Your task to perform on an android device: turn vacation reply on in the gmail app Image 0: 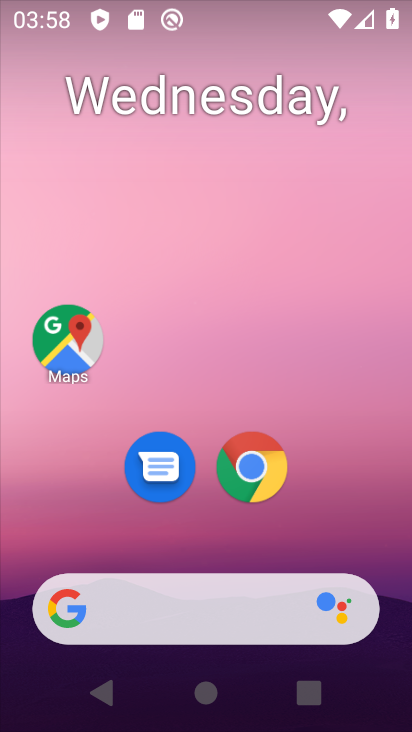
Step 0: drag from (382, 557) to (311, 173)
Your task to perform on an android device: turn vacation reply on in the gmail app Image 1: 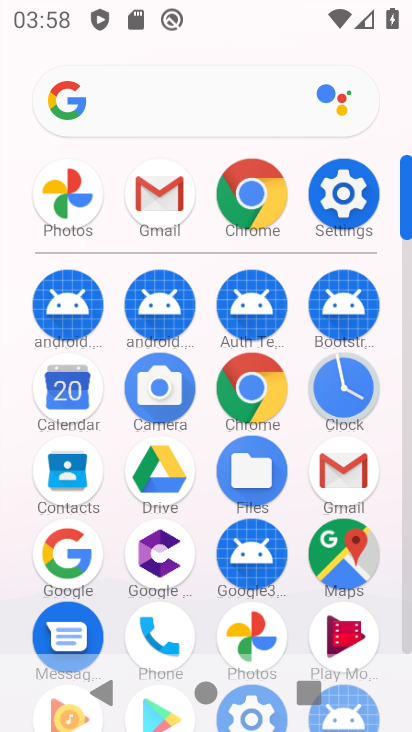
Step 1: click (406, 632)
Your task to perform on an android device: turn vacation reply on in the gmail app Image 2: 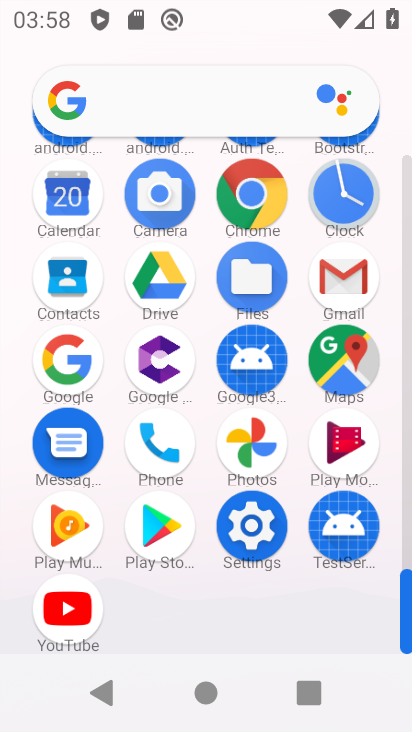
Step 2: click (343, 274)
Your task to perform on an android device: turn vacation reply on in the gmail app Image 3: 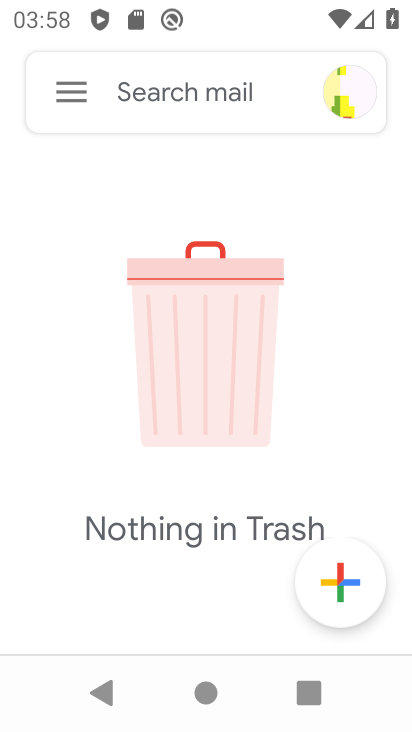
Step 3: click (71, 91)
Your task to perform on an android device: turn vacation reply on in the gmail app Image 4: 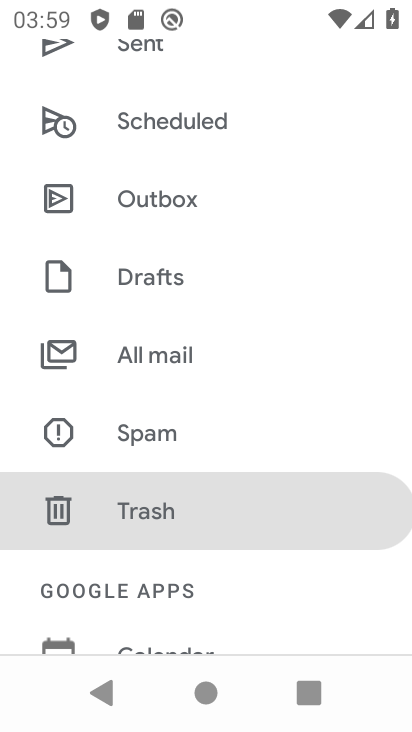
Step 4: drag from (277, 519) to (254, 230)
Your task to perform on an android device: turn vacation reply on in the gmail app Image 5: 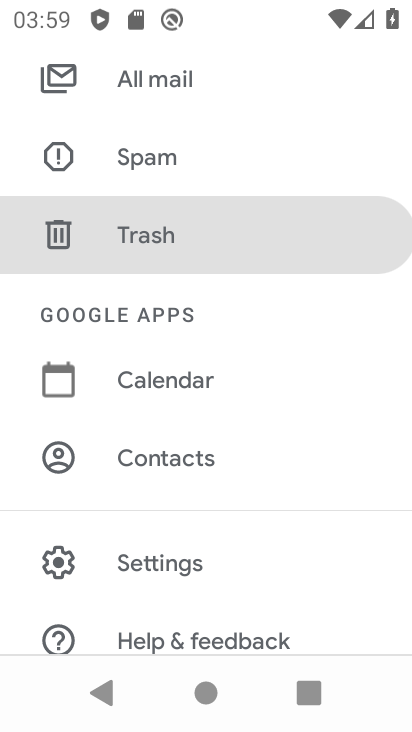
Step 5: click (162, 572)
Your task to perform on an android device: turn vacation reply on in the gmail app Image 6: 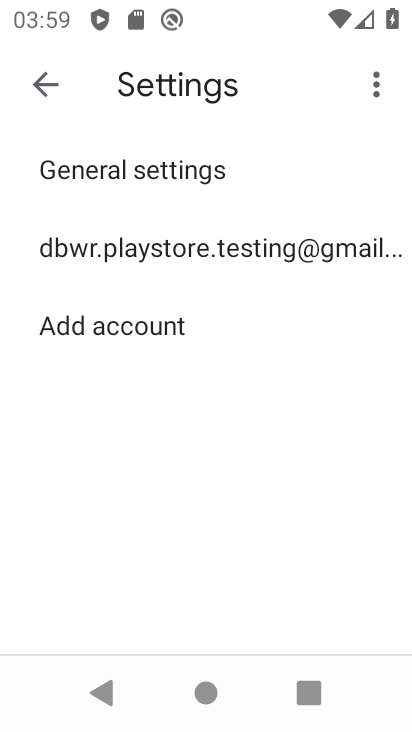
Step 6: click (159, 238)
Your task to perform on an android device: turn vacation reply on in the gmail app Image 7: 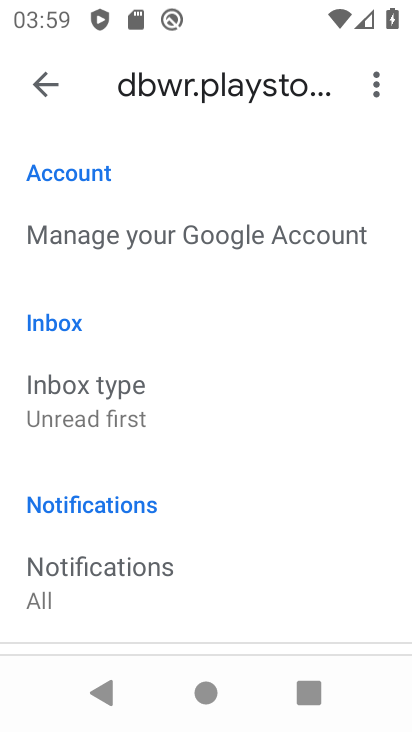
Step 7: drag from (289, 602) to (269, 300)
Your task to perform on an android device: turn vacation reply on in the gmail app Image 8: 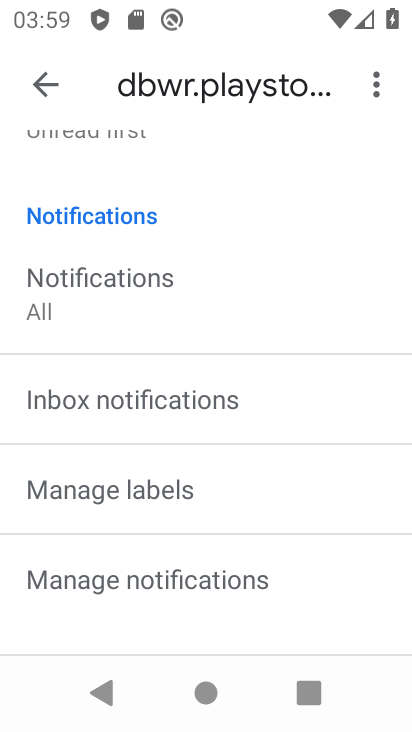
Step 8: drag from (266, 574) to (254, 261)
Your task to perform on an android device: turn vacation reply on in the gmail app Image 9: 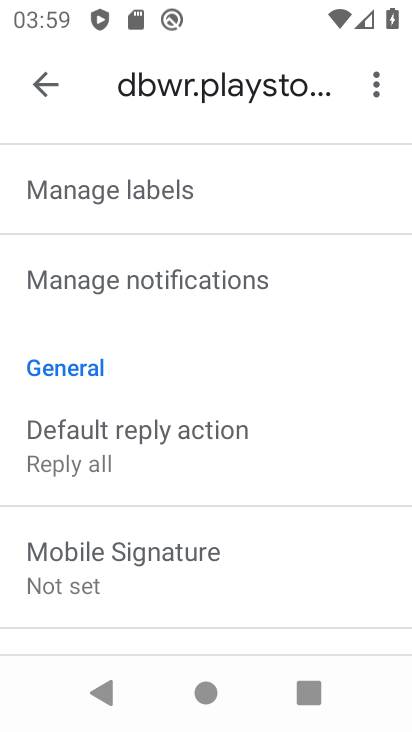
Step 9: drag from (268, 600) to (303, 332)
Your task to perform on an android device: turn vacation reply on in the gmail app Image 10: 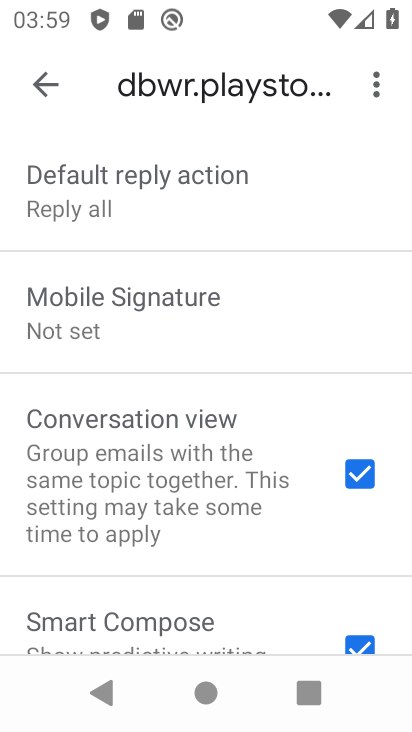
Step 10: drag from (241, 611) to (249, 358)
Your task to perform on an android device: turn vacation reply on in the gmail app Image 11: 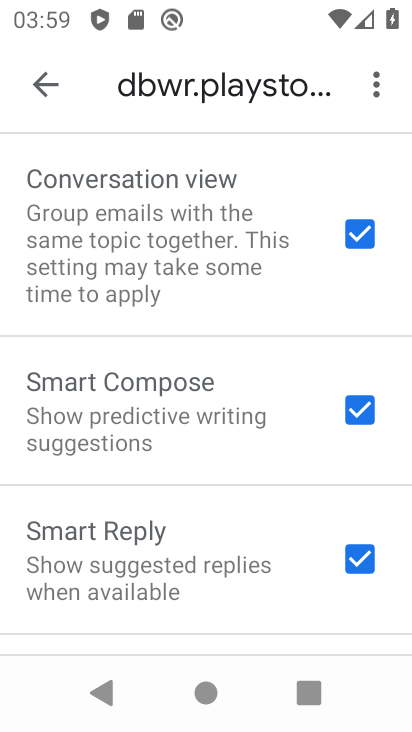
Step 11: drag from (235, 560) to (242, 194)
Your task to perform on an android device: turn vacation reply on in the gmail app Image 12: 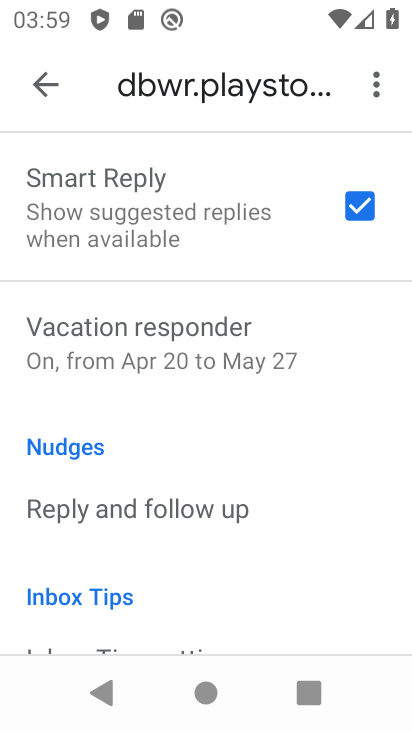
Step 12: click (118, 341)
Your task to perform on an android device: turn vacation reply on in the gmail app Image 13: 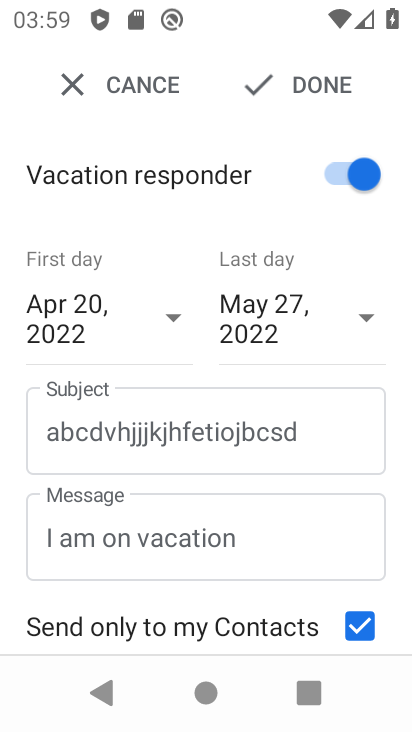
Step 13: task complete